Your task to perform on an android device: Go to internet settings Image 0: 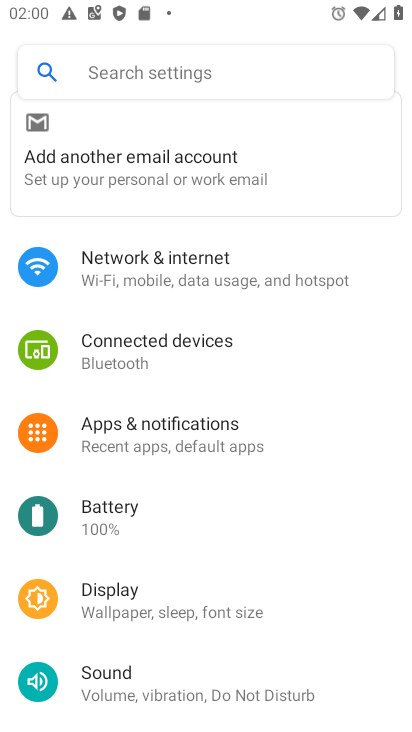
Step 0: press home button
Your task to perform on an android device: Go to internet settings Image 1: 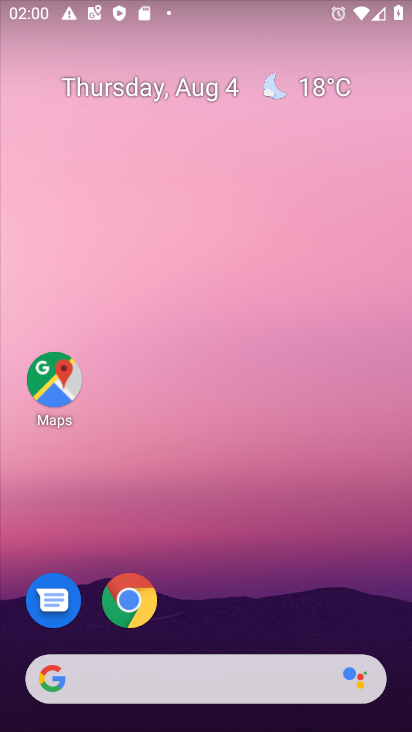
Step 1: drag from (150, 677) to (253, 74)
Your task to perform on an android device: Go to internet settings Image 2: 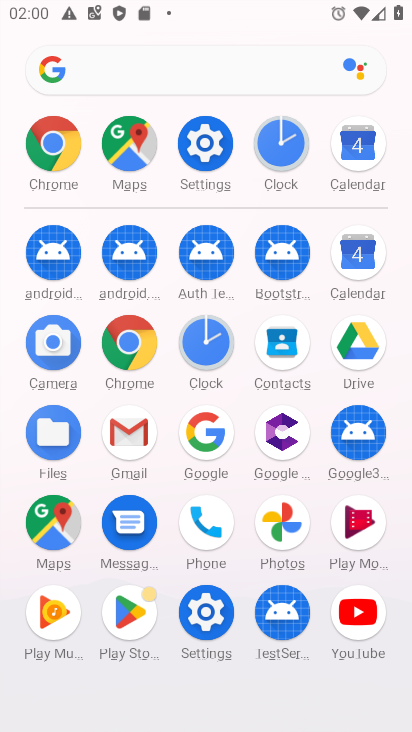
Step 2: click (210, 138)
Your task to perform on an android device: Go to internet settings Image 3: 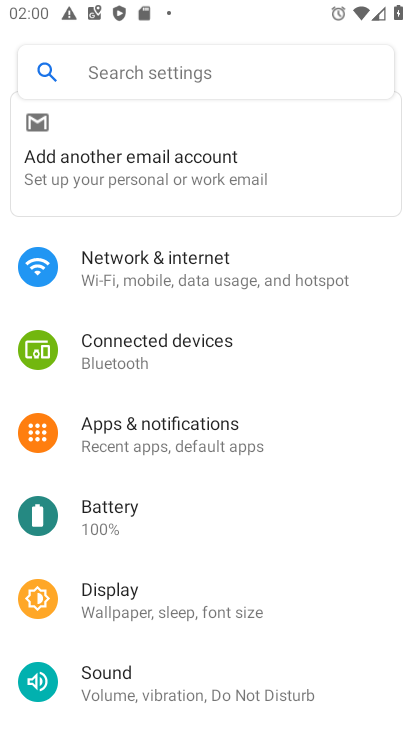
Step 3: click (196, 267)
Your task to perform on an android device: Go to internet settings Image 4: 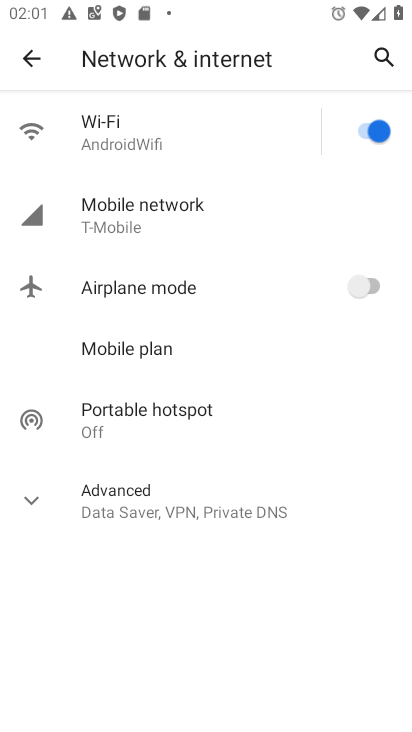
Step 4: task complete